Your task to perform on an android device: Open network settings Image 0: 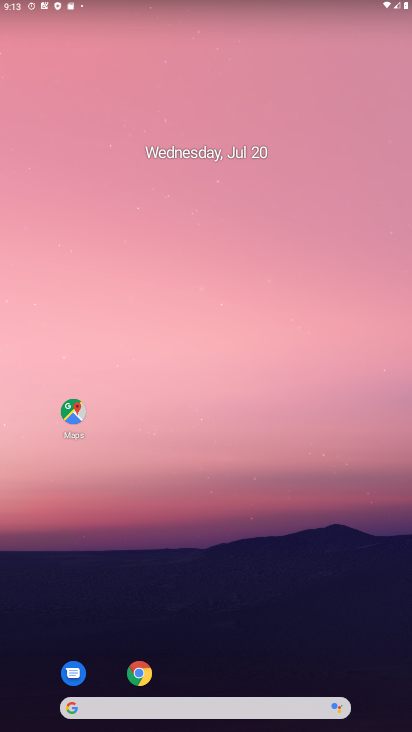
Step 0: drag from (378, 646) to (199, 93)
Your task to perform on an android device: Open network settings Image 1: 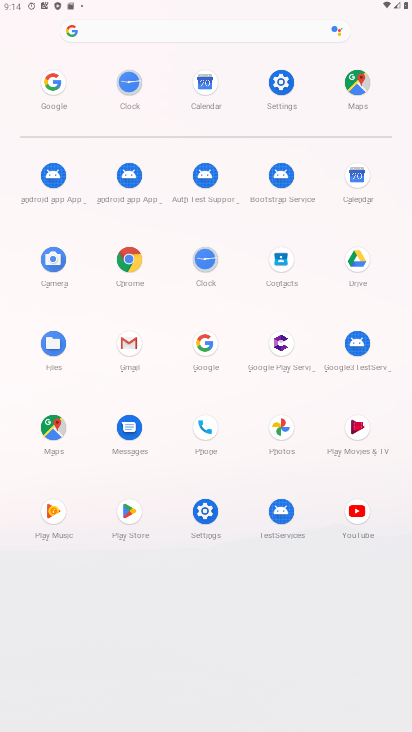
Step 1: click (200, 501)
Your task to perform on an android device: Open network settings Image 2: 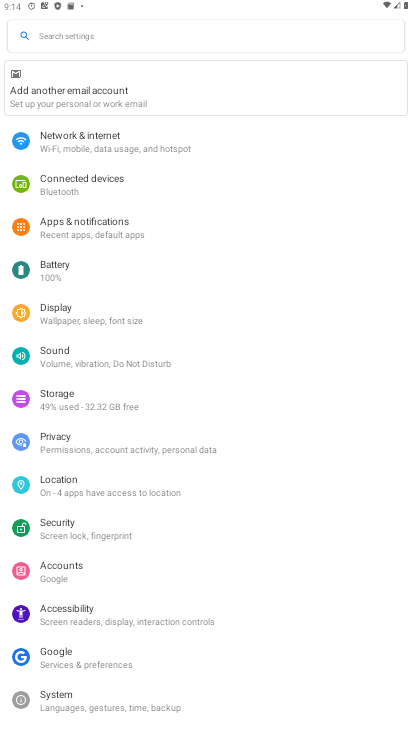
Step 2: click (84, 138)
Your task to perform on an android device: Open network settings Image 3: 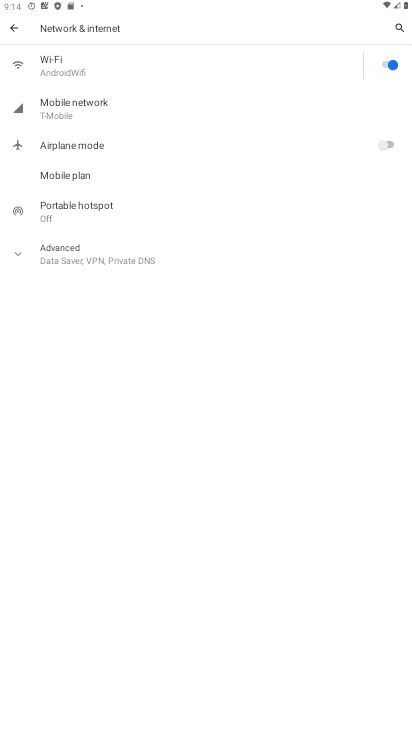
Step 3: task complete